Your task to perform on an android device: turn off improve location accuracy Image 0: 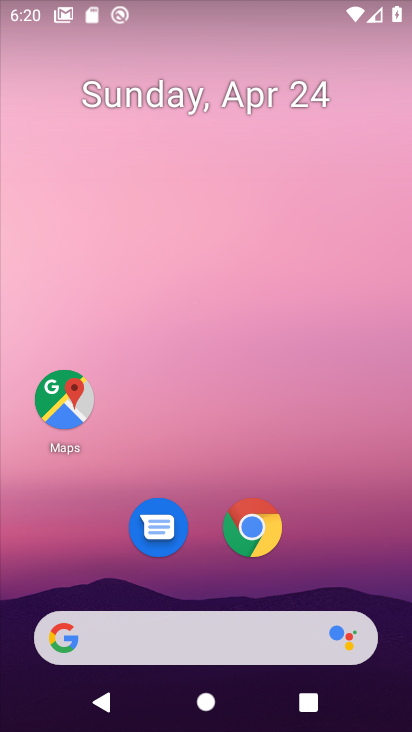
Step 0: drag from (305, 581) to (196, 7)
Your task to perform on an android device: turn off improve location accuracy Image 1: 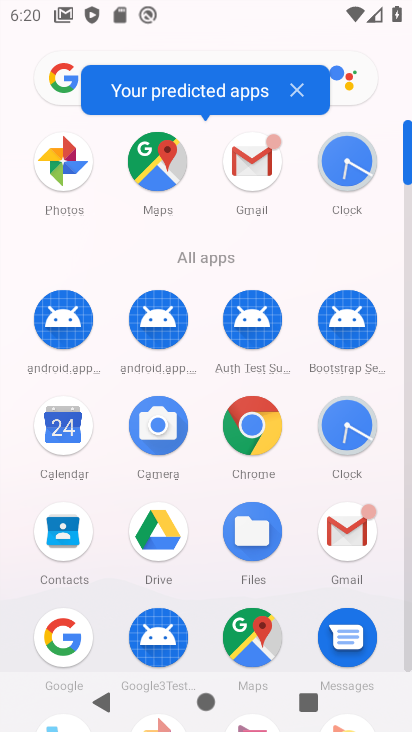
Step 1: drag from (201, 543) to (110, 1)
Your task to perform on an android device: turn off improve location accuracy Image 2: 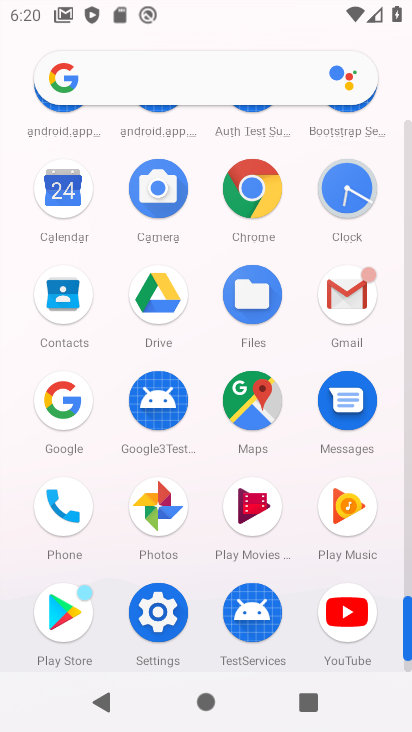
Step 2: click (161, 616)
Your task to perform on an android device: turn off improve location accuracy Image 3: 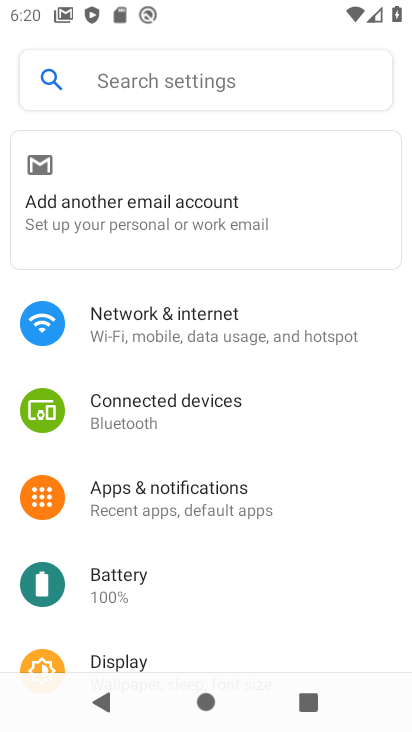
Step 3: drag from (212, 608) to (196, 74)
Your task to perform on an android device: turn off improve location accuracy Image 4: 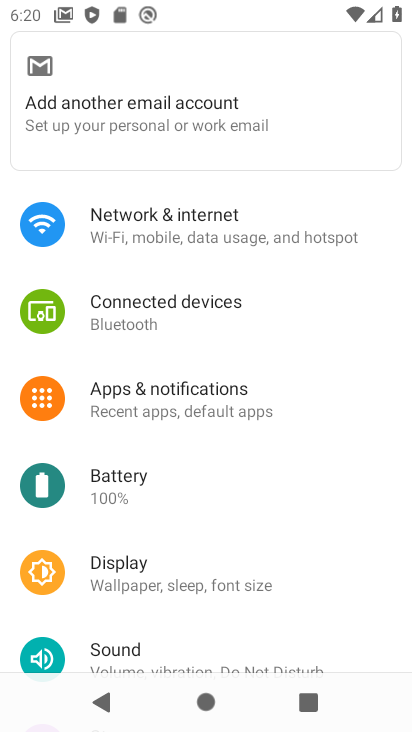
Step 4: drag from (198, 597) to (184, 79)
Your task to perform on an android device: turn off improve location accuracy Image 5: 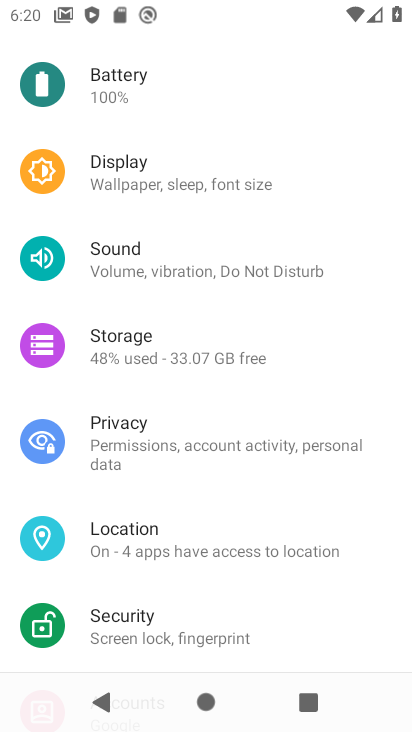
Step 5: click (123, 526)
Your task to perform on an android device: turn off improve location accuracy Image 6: 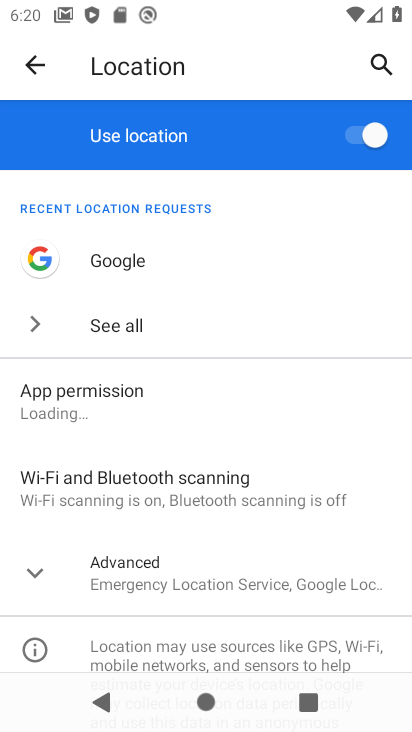
Step 6: click (33, 574)
Your task to perform on an android device: turn off improve location accuracy Image 7: 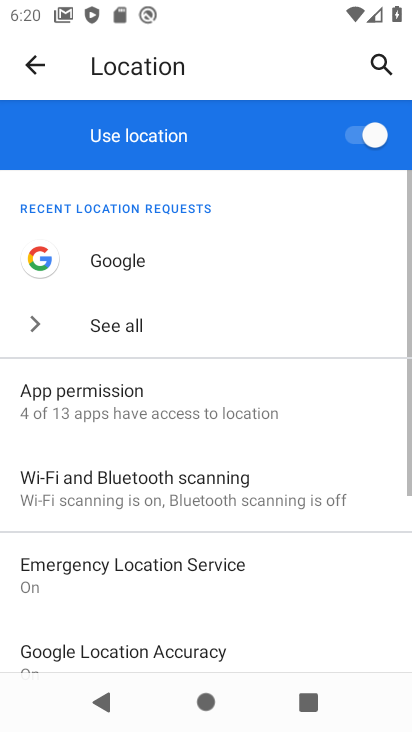
Step 7: drag from (214, 605) to (223, 251)
Your task to perform on an android device: turn off improve location accuracy Image 8: 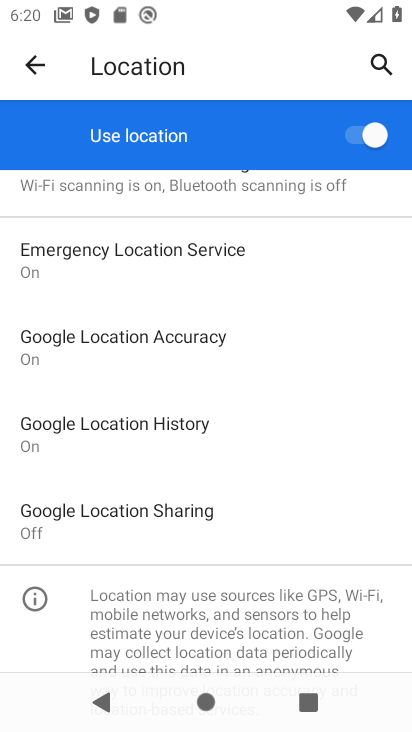
Step 8: click (132, 337)
Your task to perform on an android device: turn off improve location accuracy Image 9: 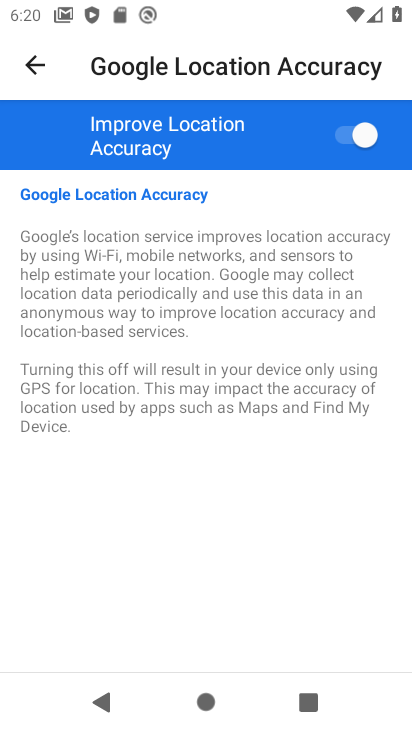
Step 9: click (368, 130)
Your task to perform on an android device: turn off improve location accuracy Image 10: 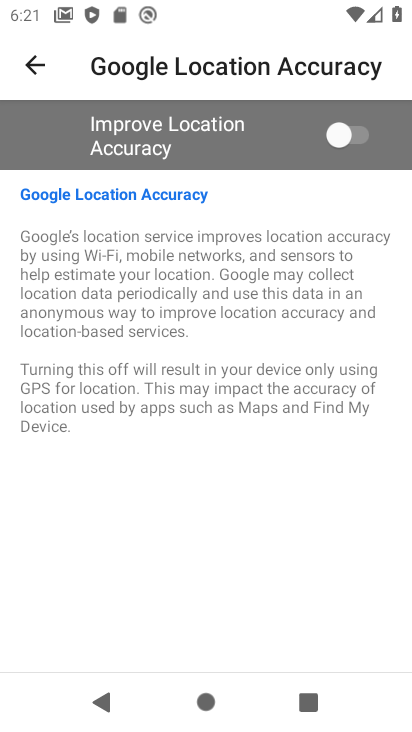
Step 10: task complete